Your task to perform on an android device: Open internet settings Image 0: 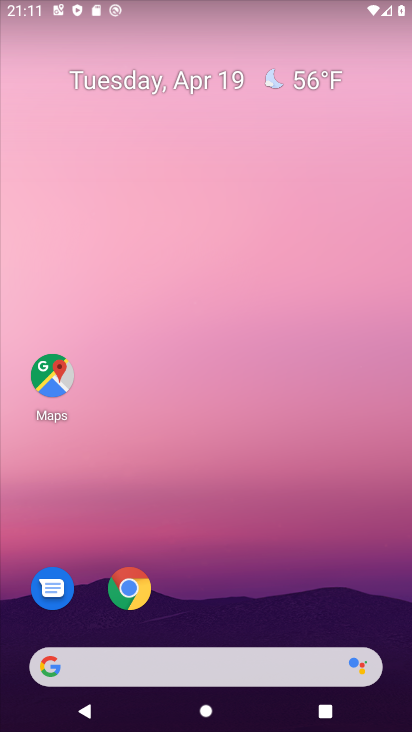
Step 0: drag from (200, 607) to (253, 48)
Your task to perform on an android device: Open internet settings Image 1: 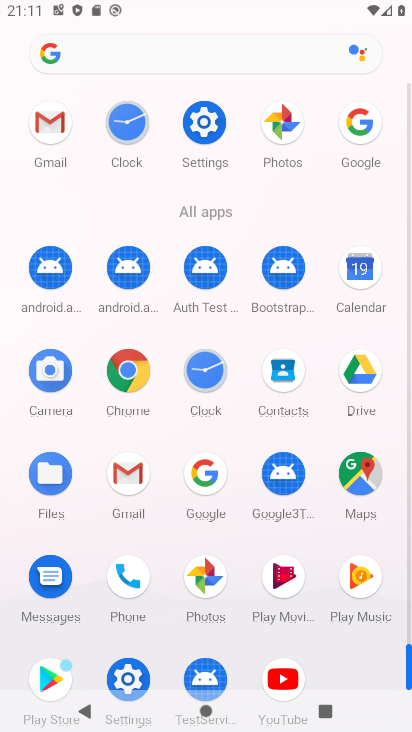
Step 1: click (205, 123)
Your task to perform on an android device: Open internet settings Image 2: 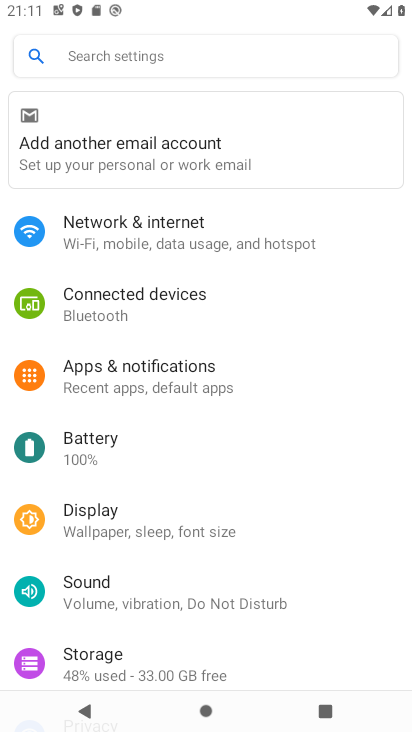
Step 2: click (171, 226)
Your task to perform on an android device: Open internet settings Image 3: 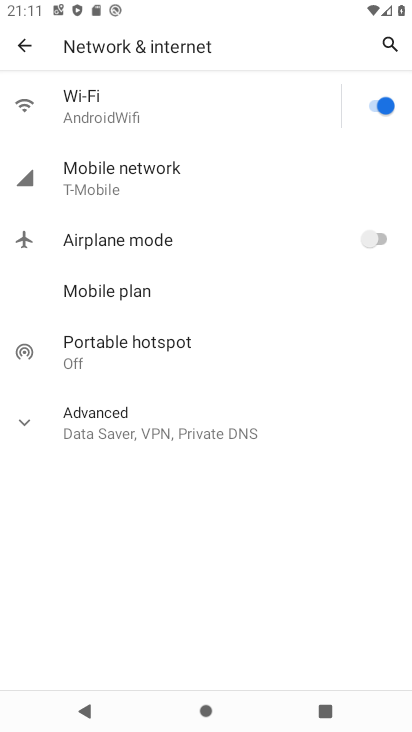
Step 3: click (84, 105)
Your task to perform on an android device: Open internet settings Image 4: 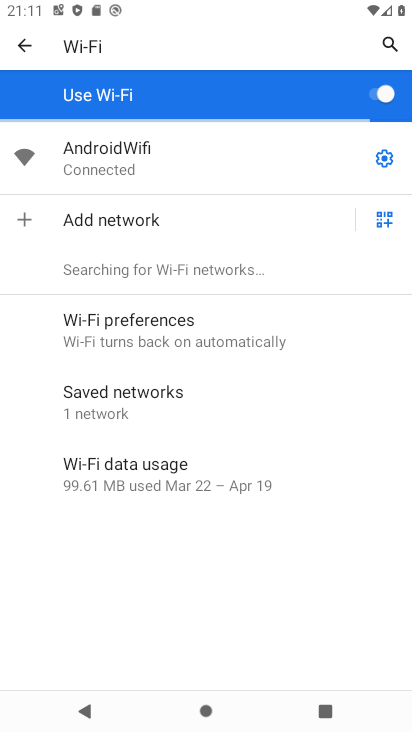
Step 4: task complete